Your task to perform on an android device: Open privacy settings Image 0: 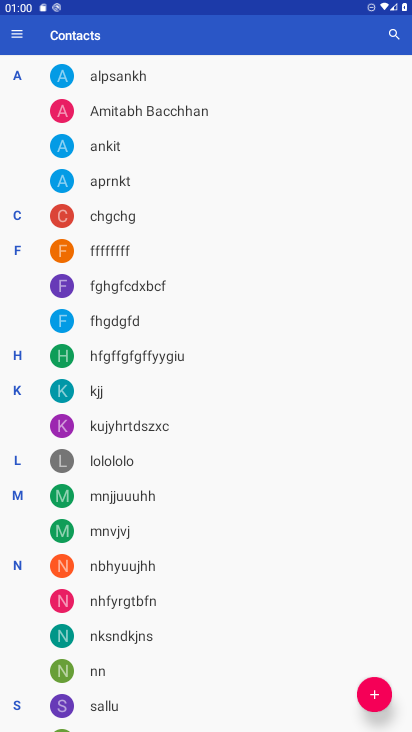
Step 0: press home button
Your task to perform on an android device: Open privacy settings Image 1: 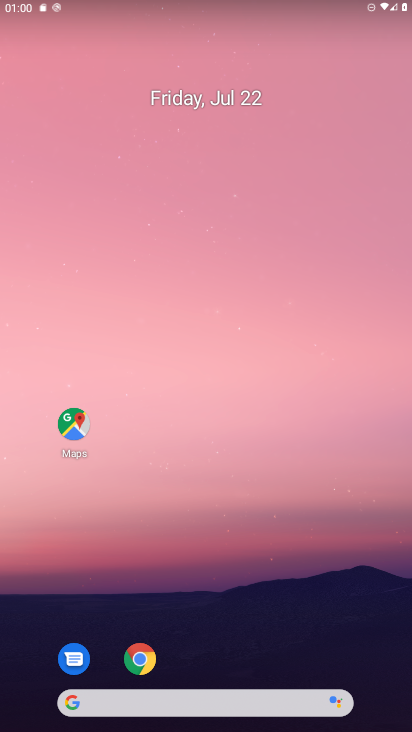
Step 1: drag from (233, 705) to (224, 34)
Your task to perform on an android device: Open privacy settings Image 2: 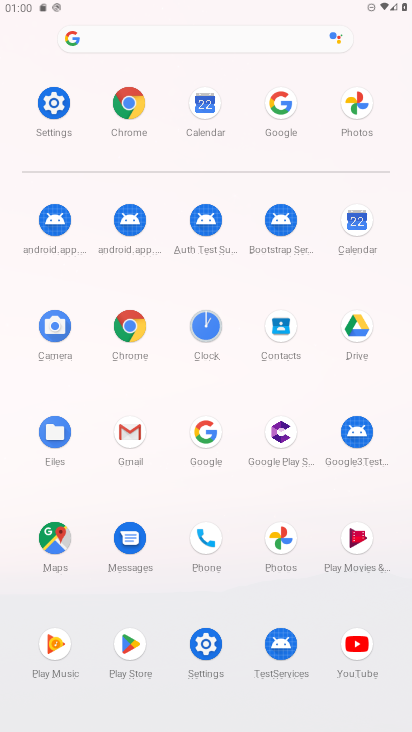
Step 2: click (52, 102)
Your task to perform on an android device: Open privacy settings Image 3: 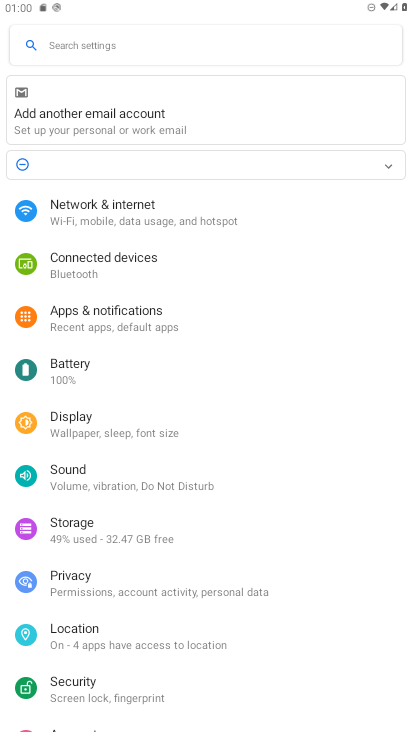
Step 3: click (74, 583)
Your task to perform on an android device: Open privacy settings Image 4: 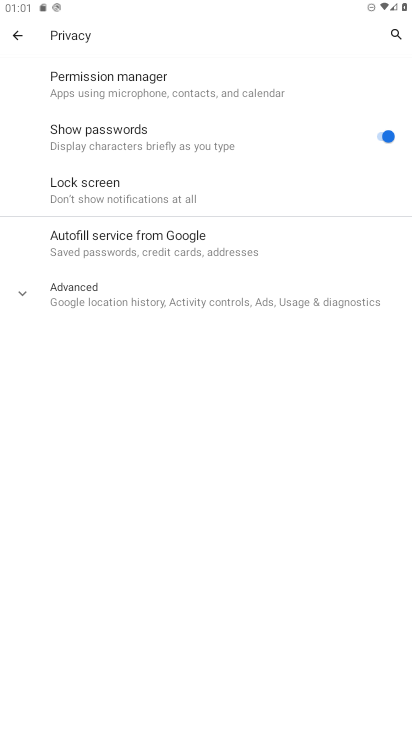
Step 4: task complete